Your task to perform on an android device: Search for seafood restaurants on Google Maps Image 0: 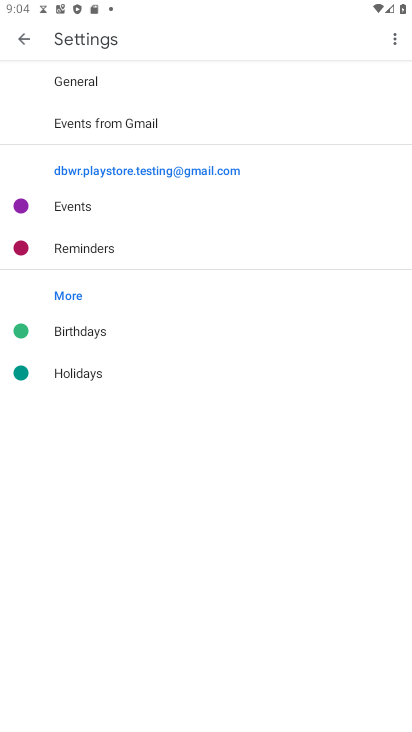
Step 0: press home button
Your task to perform on an android device: Search for seafood restaurants on Google Maps Image 1: 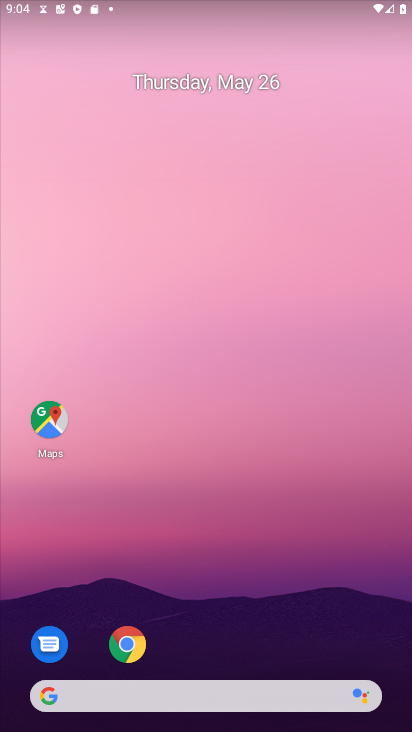
Step 1: click (48, 413)
Your task to perform on an android device: Search for seafood restaurants on Google Maps Image 2: 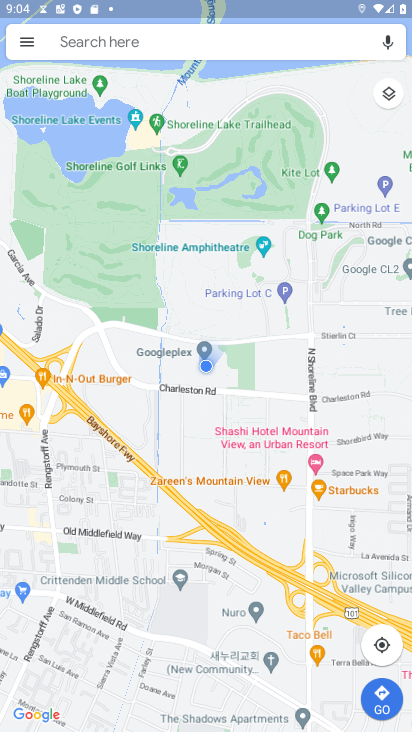
Step 2: click (95, 44)
Your task to perform on an android device: Search for seafood restaurants on Google Maps Image 3: 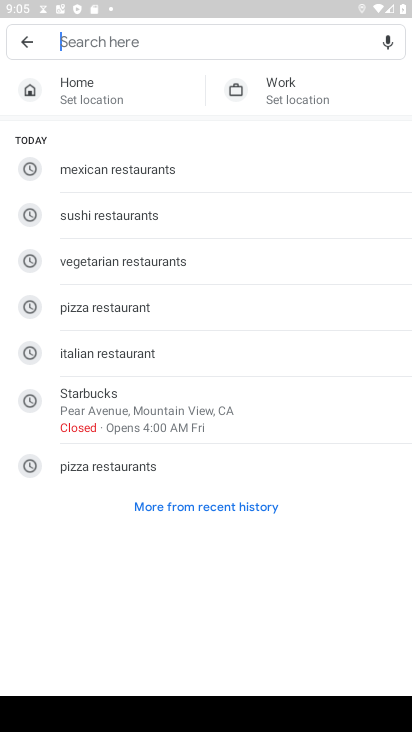
Step 3: type "seafood restaurants"
Your task to perform on an android device: Search for seafood restaurants on Google Maps Image 4: 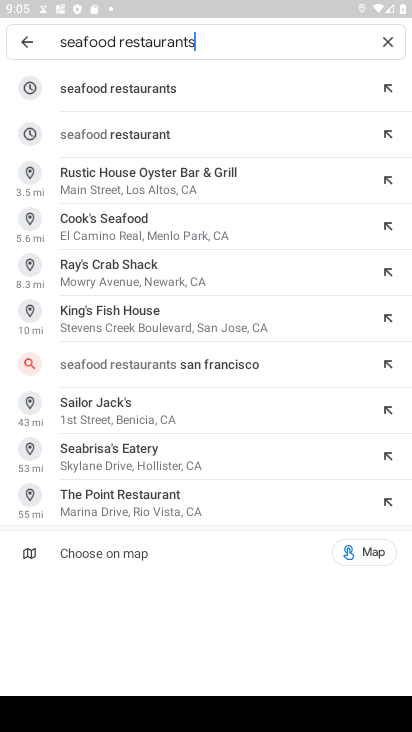
Step 4: click (130, 87)
Your task to perform on an android device: Search for seafood restaurants on Google Maps Image 5: 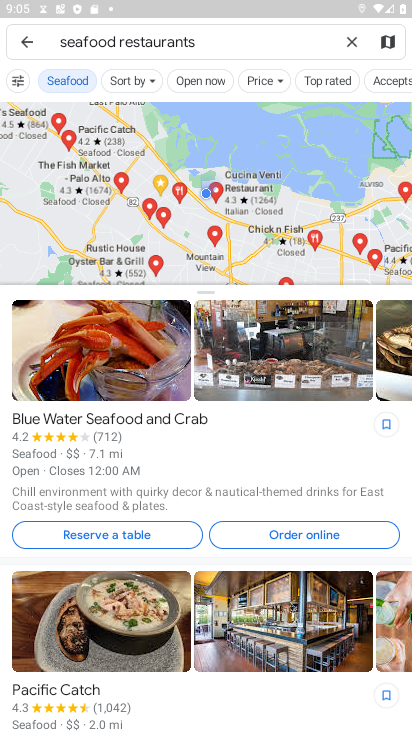
Step 5: task complete